Your task to perform on an android device: delete the emails in spam in the gmail app Image 0: 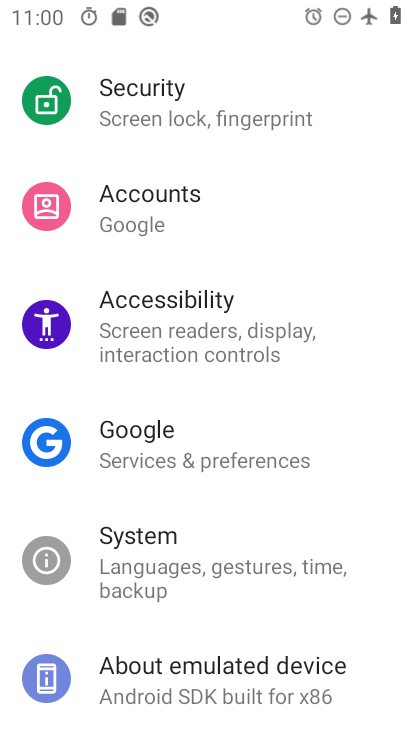
Step 0: press home button
Your task to perform on an android device: delete the emails in spam in the gmail app Image 1: 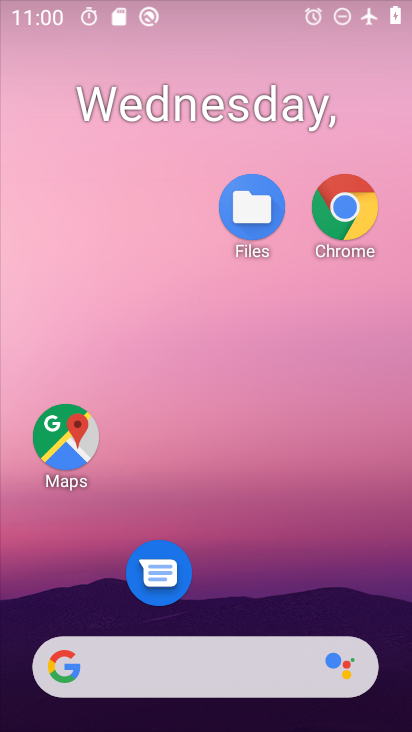
Step 1: drag from (236, 653) to (257, 189)
Your task to perform on an android device: delete the emails in spam in the gmail app Image 2: 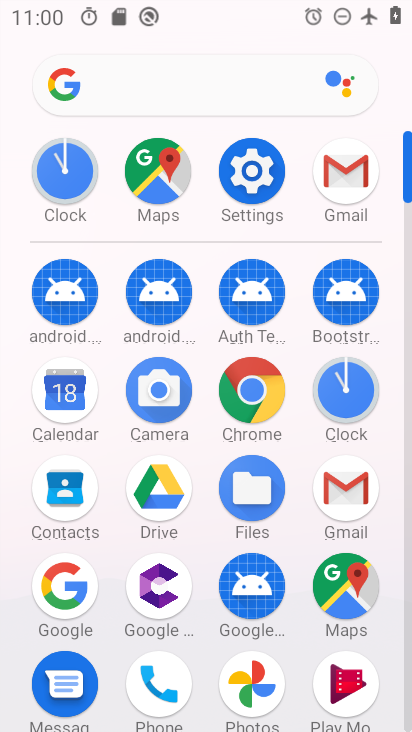
Step 2: click (347, 501)
Your task to perform on an android device: delete the emails in spam in the gmail app Image 3: 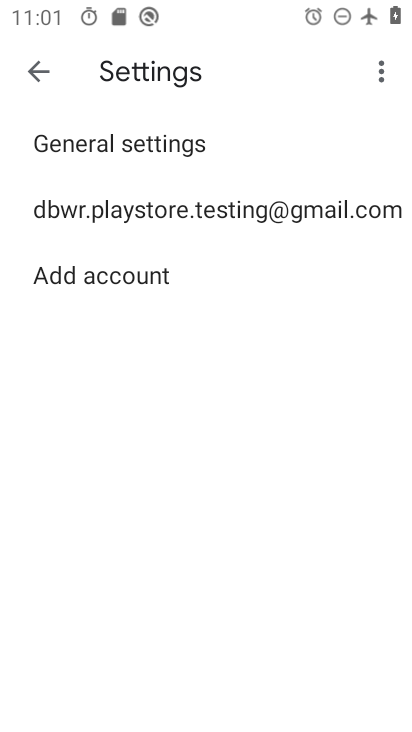
Step 3: click (43, 74)
Your task to perform on an android device: delete the emails in spam in the gmail app Image 4: 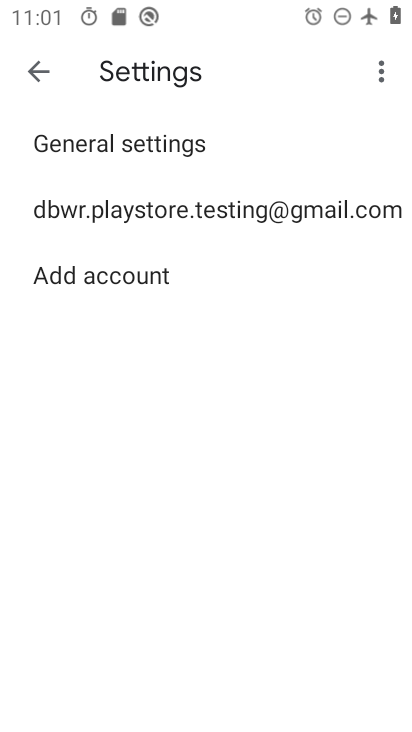
Step 4: click (40, 74)
Your task to perform on an android device: delete the emails in spam in the gmail app Image 5: 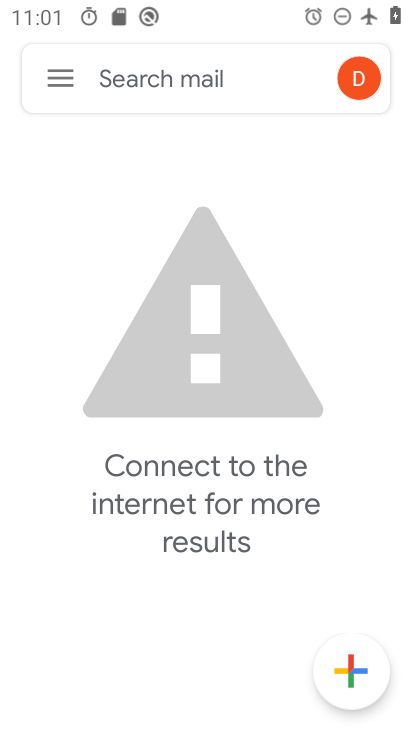
Step 5: click (55, 85)
Your task to perform on an android device: delete the emails in spam in the gmail app Image 6: 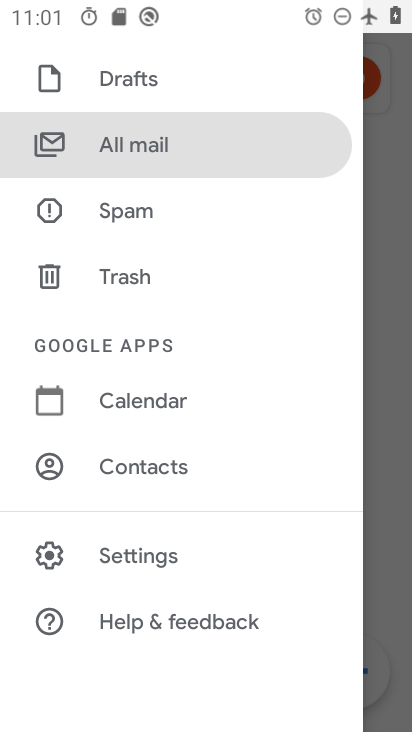
Step 6: task complete